Your task to perform on an android device: Check the settings for the Netflix app Image 0: 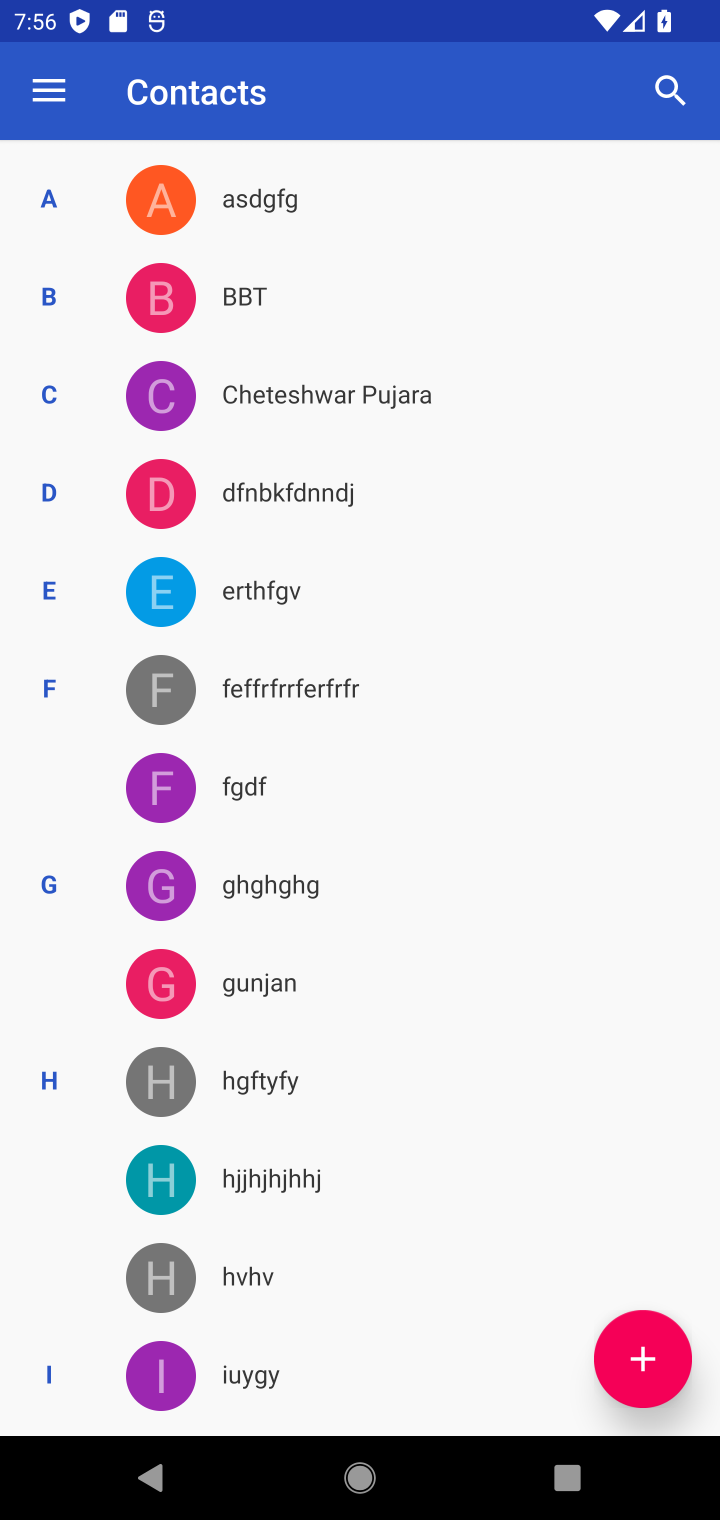
Step 0: press home button
Your task to perform on an android device: Check the settings for the Netflix app Image 1: 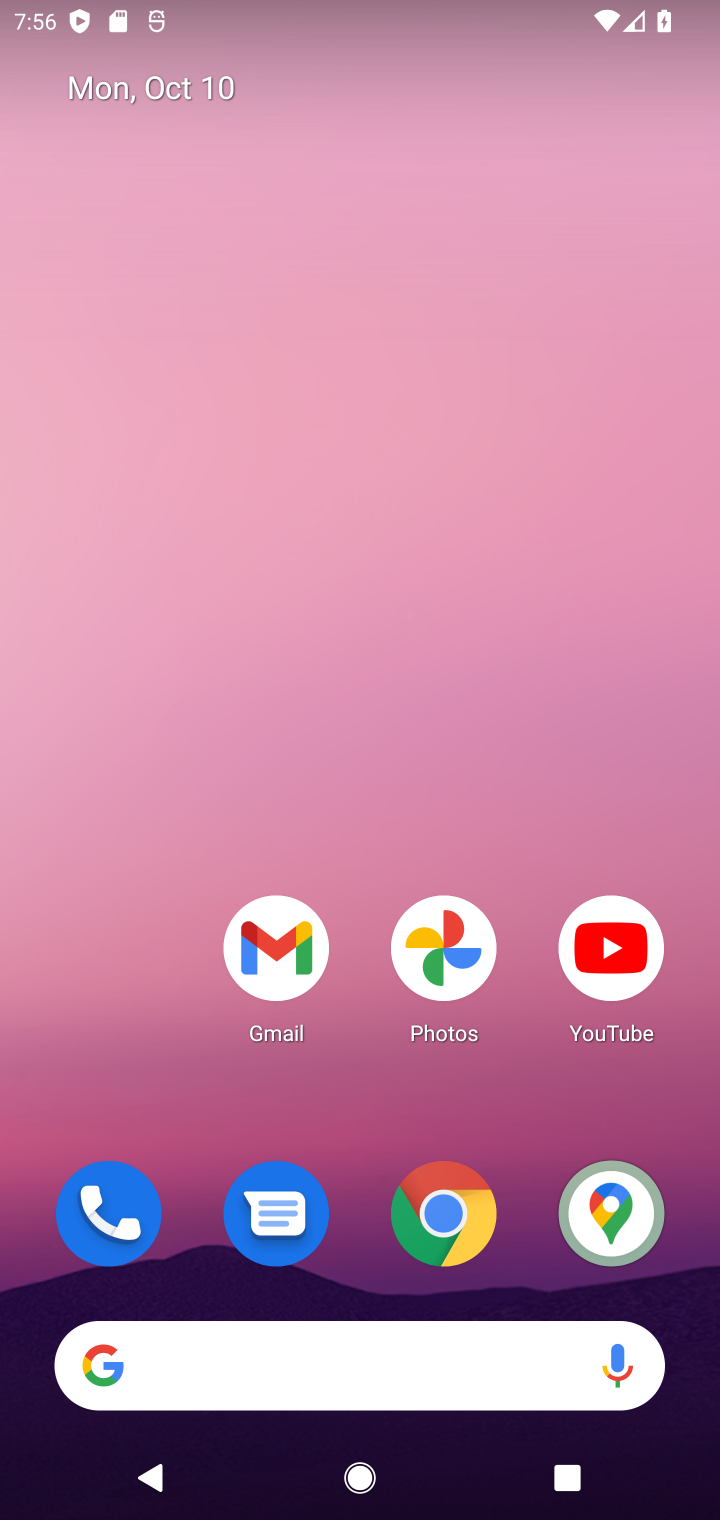
Step 1: task complete